Your task to perform on an android device: Empty the shopping cart on costco.com. Add "dell alienware" to the cart on costco.com Image 0: 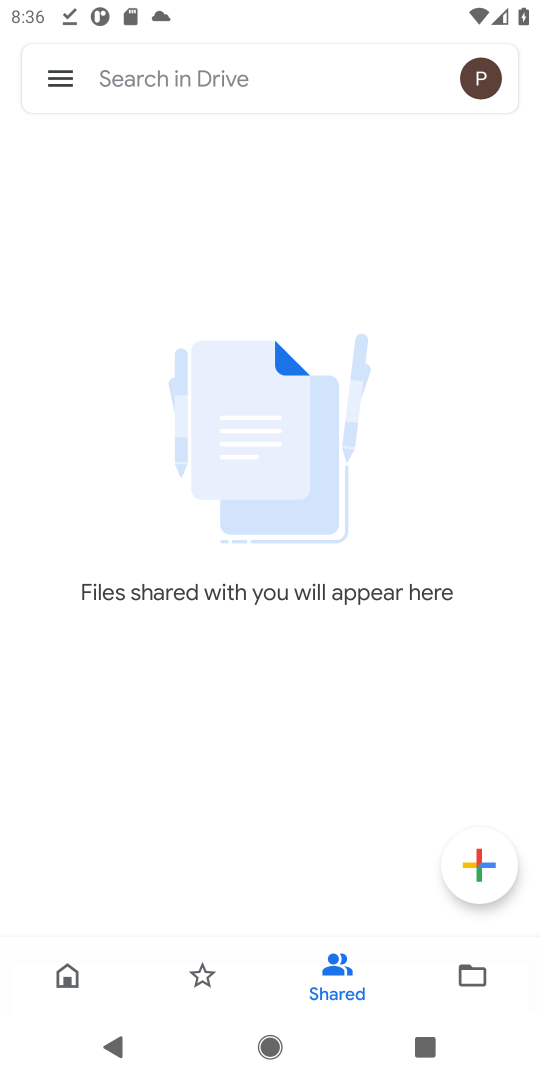
Step 0: press home button
Your task to perform on an android device: Empty the shopping cart on costco.com. Add "dell alienware" to the cart on costco.com Image 1: 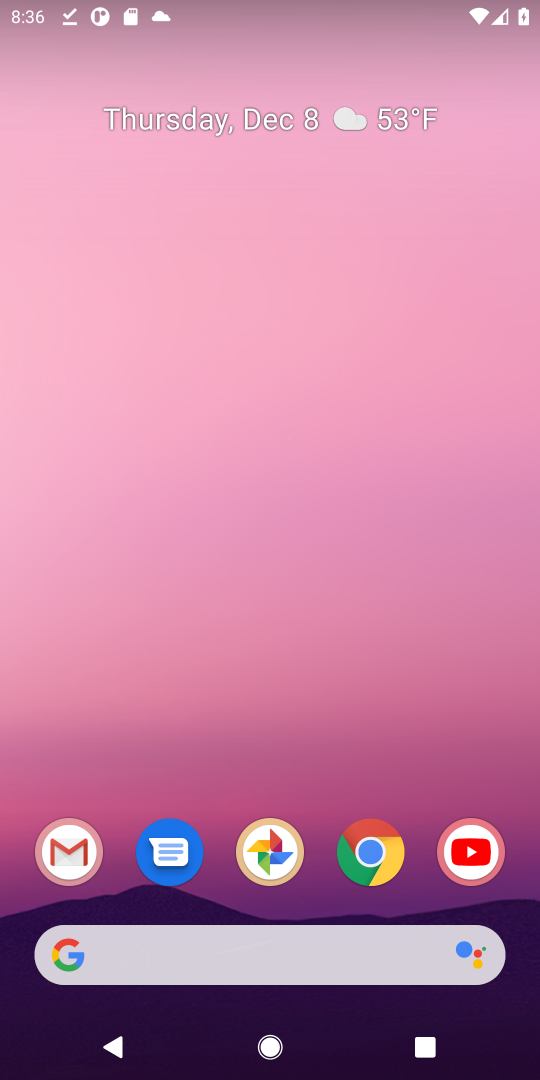
Step 1: click (278, 942)
Your task to perform on an android device: Empty the shopping cart on costco.com. Add "dell alienware" to the cart on costco.com Image 2: 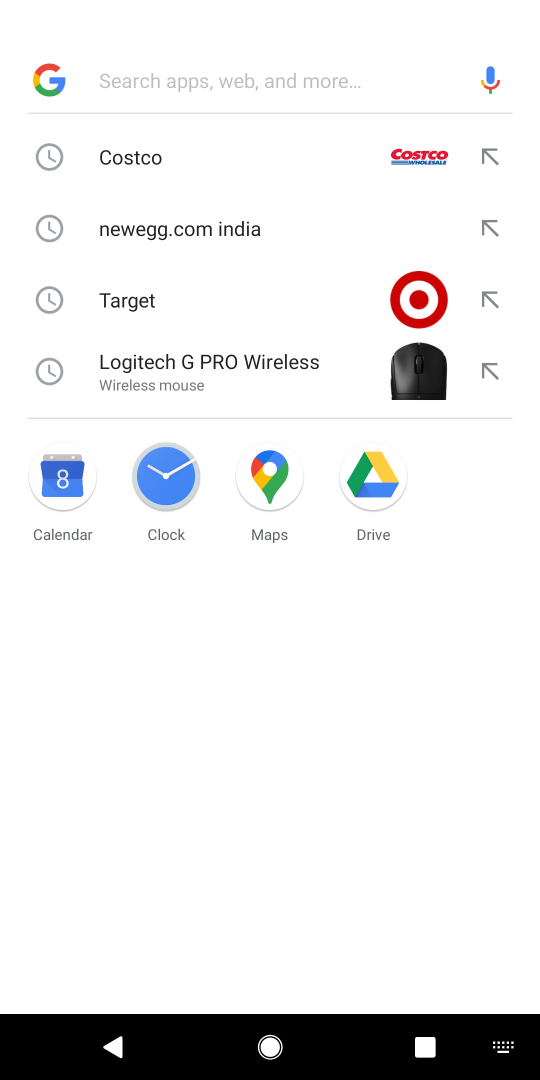
Step 2: click (166, 142)
Your task to perform on an android device: Empty the shopping cart on costco.com. Add "dell alienware" to the cart on costco.com Image 3: 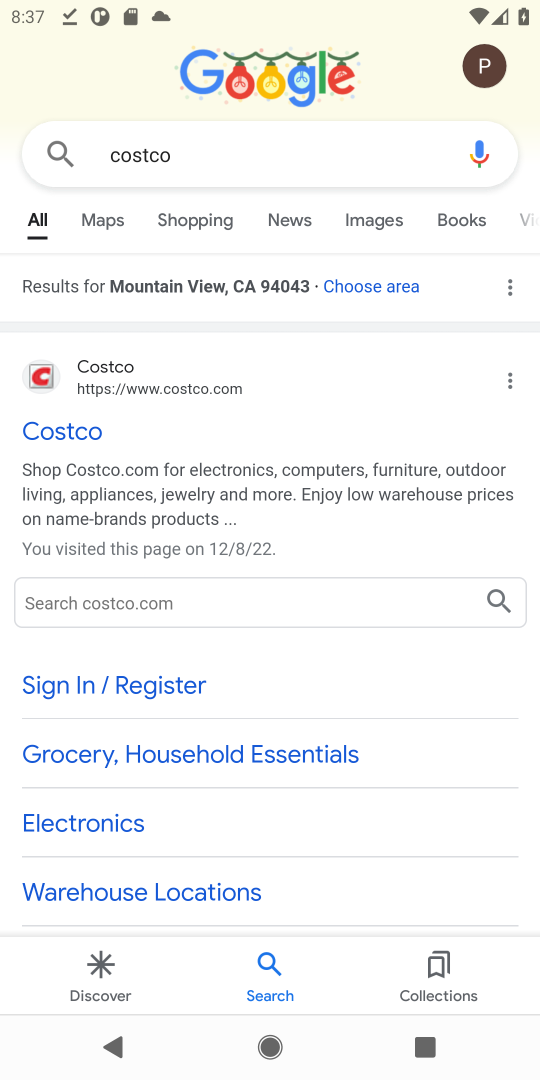
Step 3: click (65, 448)
Your task to perform on an android device: Empty the shopping cart on costco.com. Add "dell alienware" to the cart on costco.com Image 4: 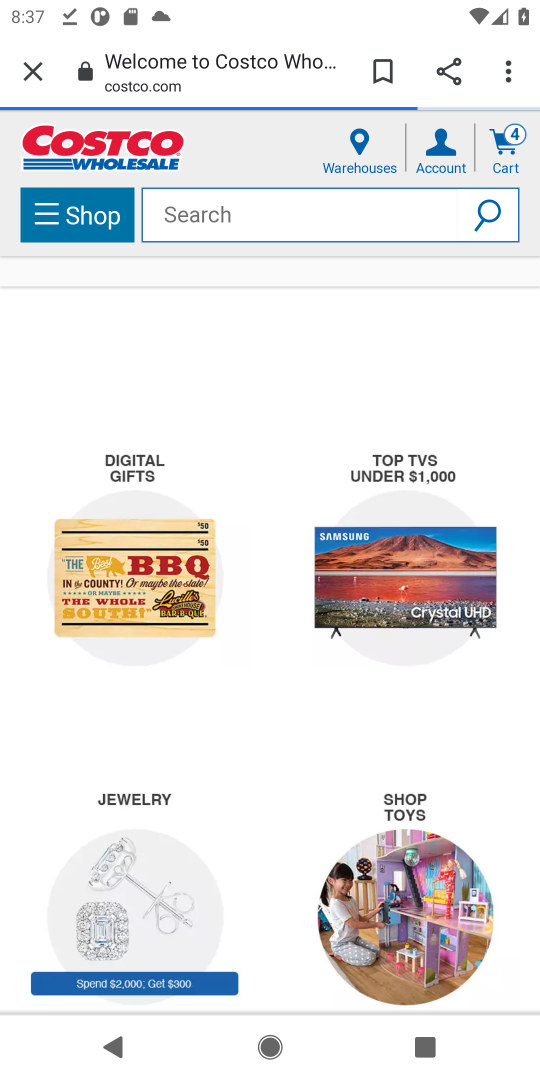
Step 4: click (204, 205)
Your task to perform on an android device: Empty the shopping cart on costco.com. Add "dell alienware" to the cart on costco.com Image 5: 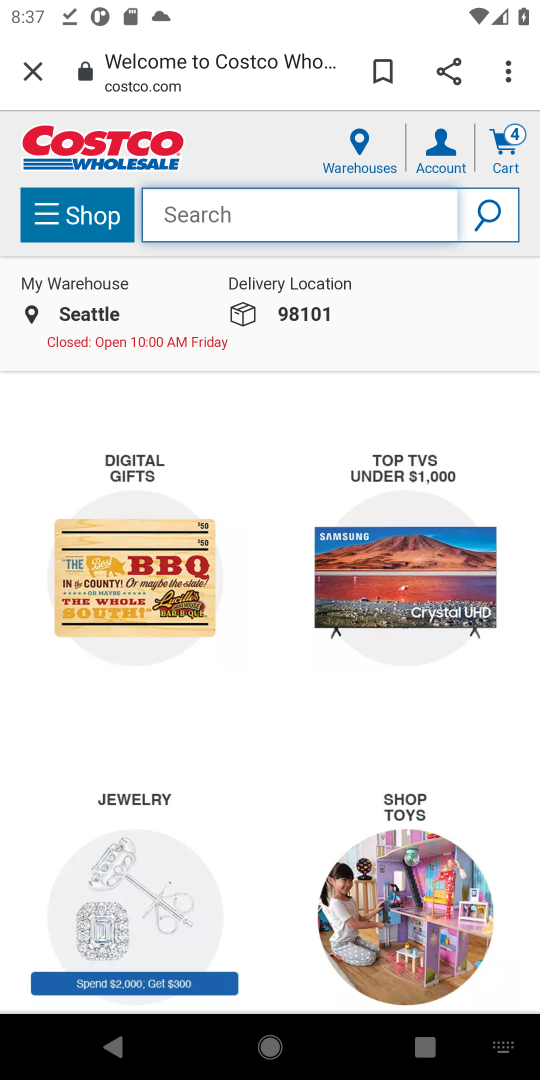
Step 5: type "dell xps"
Your task to perform on an android device: Empty the shopping cart on costco.com. Add "dell alienware" to the cart on costco.com Image 6: 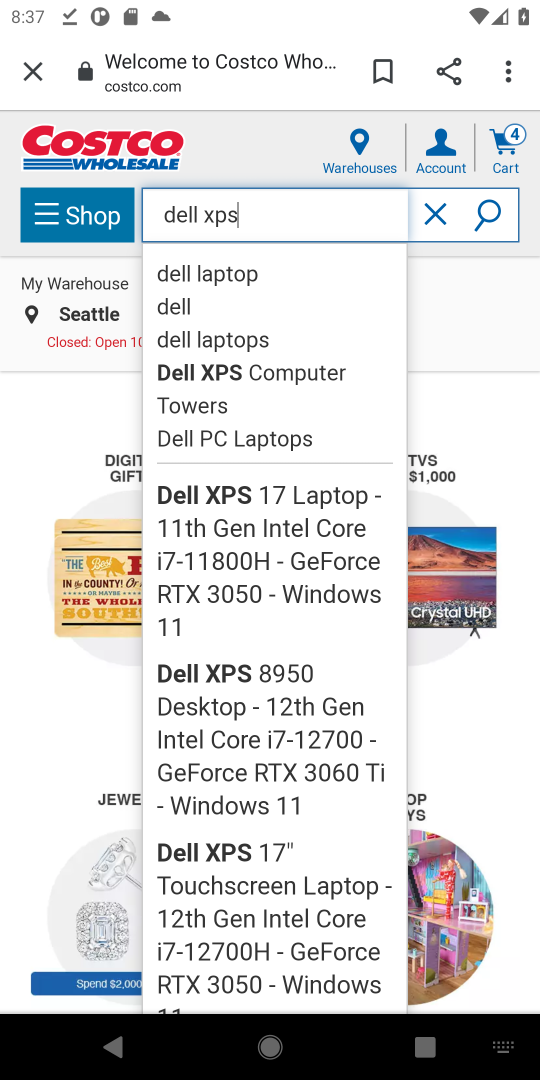
Step 6: click (469, 215)
Your task to perform on an android device: Empty the shopping cart on costco.com. Add "dell alienware" to the cart on costco.com Image 7: 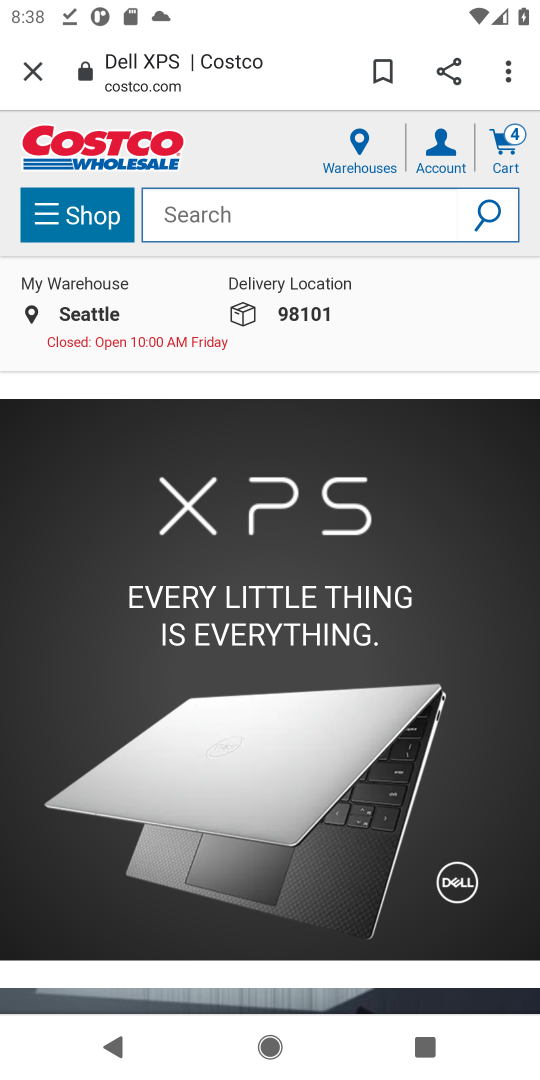
Step 7: click (239, 225)
Your task to perform on an android device: Empty the shopping cart on costco.com. Add "dell alienware" to the cart on costco.com Image 8: 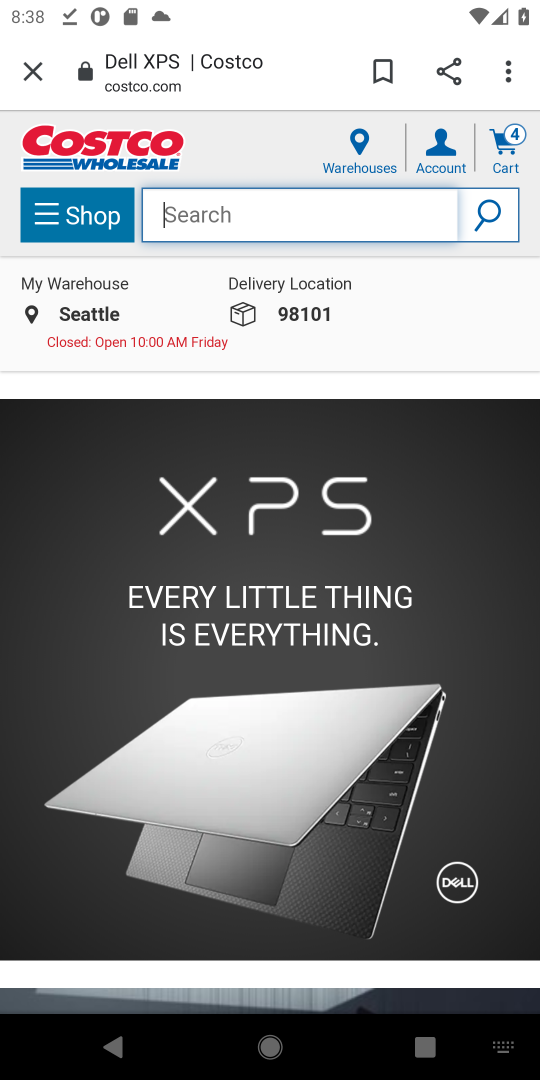
Step 8: type "alienware"
Your task to perform on an android device: Empty the shopping cart on costco.com. Add "dell alienware" to the cart on costco.com Image 9: 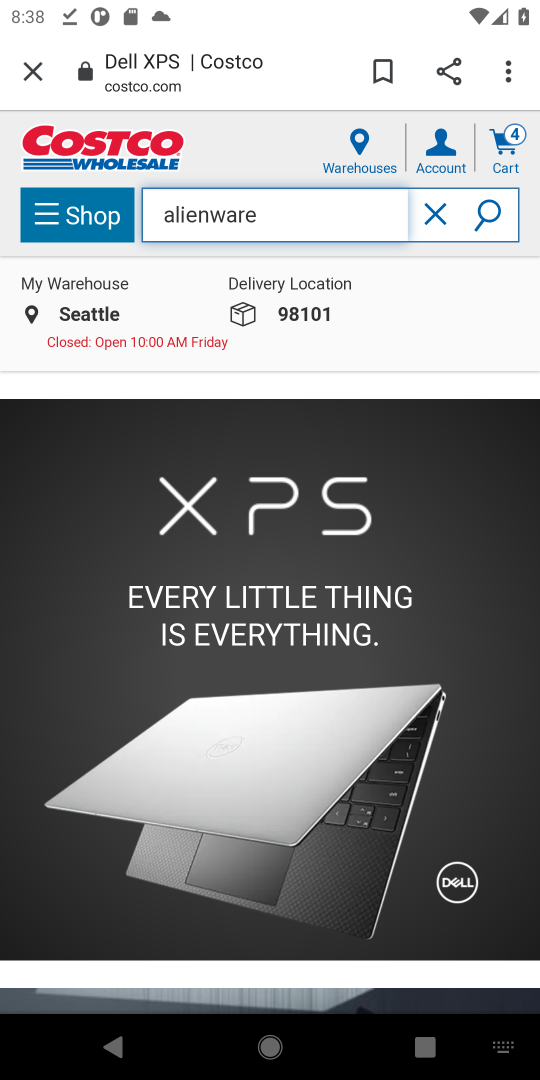
Step 9: click (483, 231)
Your task to perform on an android device: Empty the shopping cart on costco.com. Add "dell alienware" to the cart on costco.com Image 10: 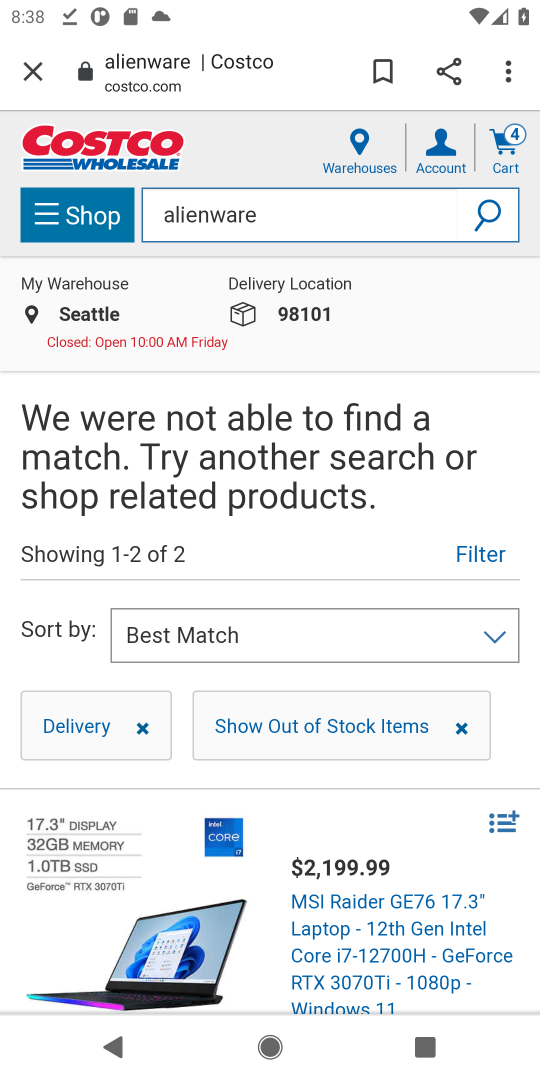
Step 10: task complete